Your task to perform on an android device: Is it going to rain tomorrow? Image 0: 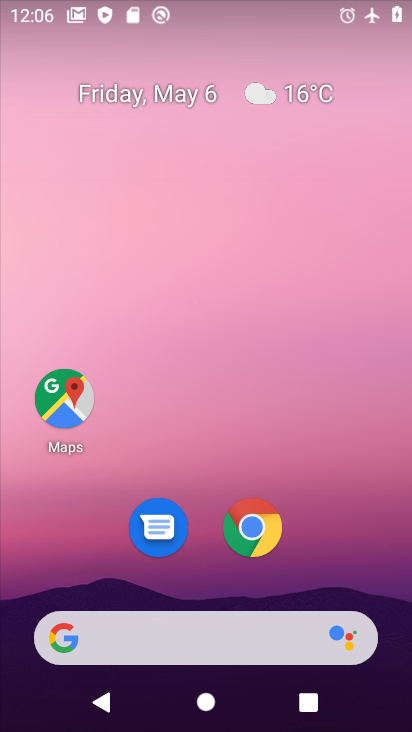
Step 0: click (245, 527)
Your task to perform on an android device: Is it going to rain tomorrow? Image 1: 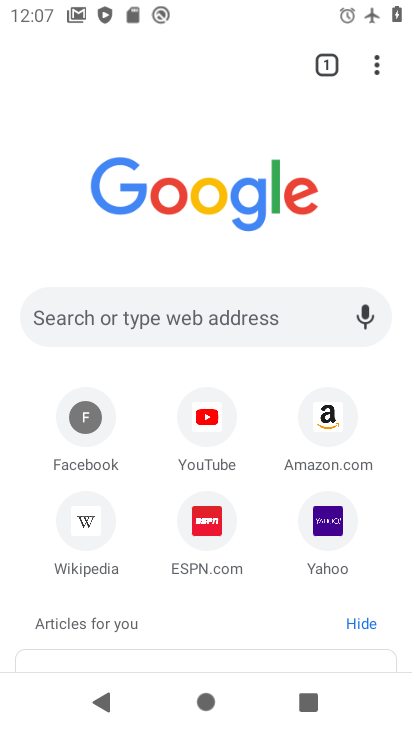
Step 1: click (138, 311)
Your task to perform on an android device: Is it going to rain tomorrow? Image 2: 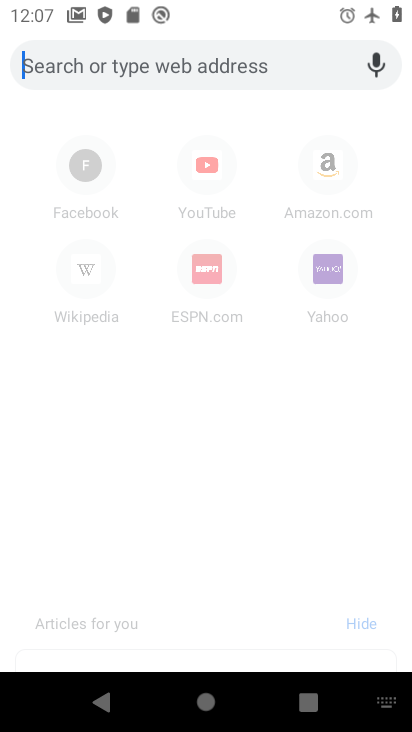
Step 2: type "is it going to rain tomorrow"
Your task to perform on an android device: Is it going to rain tomorrow? Image 3: 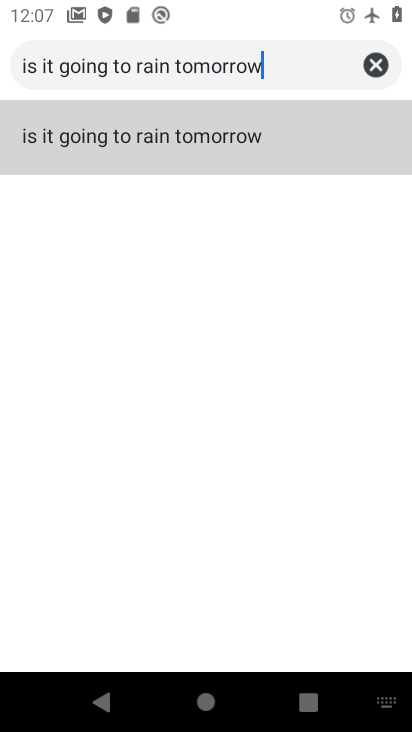
Step 3: click (171, 123)
Your task to perform on an android device: Is it going to rain tomorrow? Image 4: 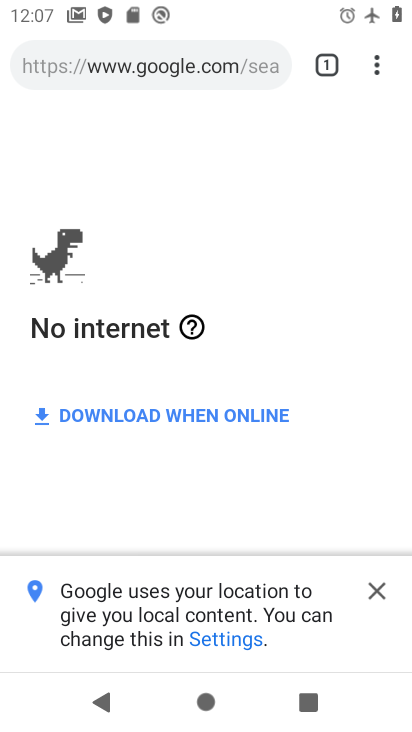
Step 4: task complete